Your task to perform on an android device: turn on priority inbox in the gmail app Image 0: 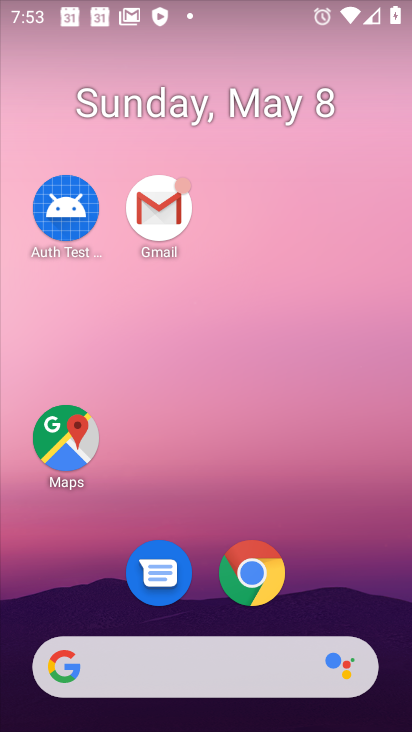
Step 0: drag from (332, 604) to (180, 159)
Your task to perform on an android device: turn on priority inbox in the gmail app Image 1: 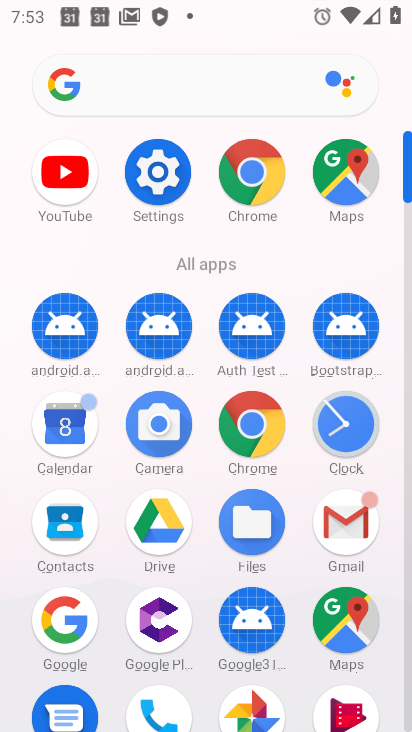
Step 1: click (343, 520)
Your task to perform on an android device: turn on priority inbox in the gmail app Image 2: 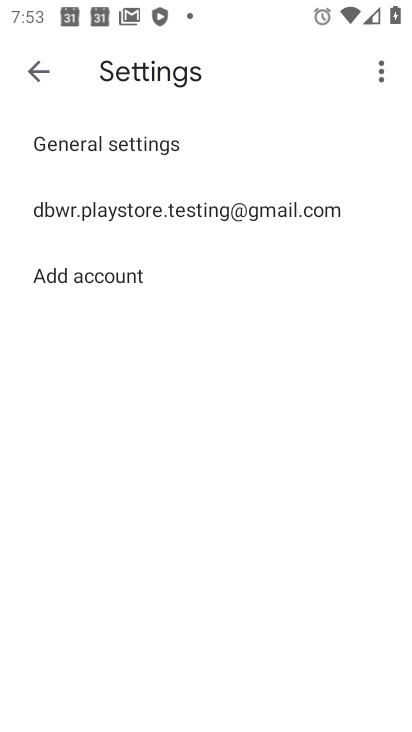
Step 2: click (158, 200)
Your task to perform on an android device: turn on priority inbox in the gmail app Image 3: 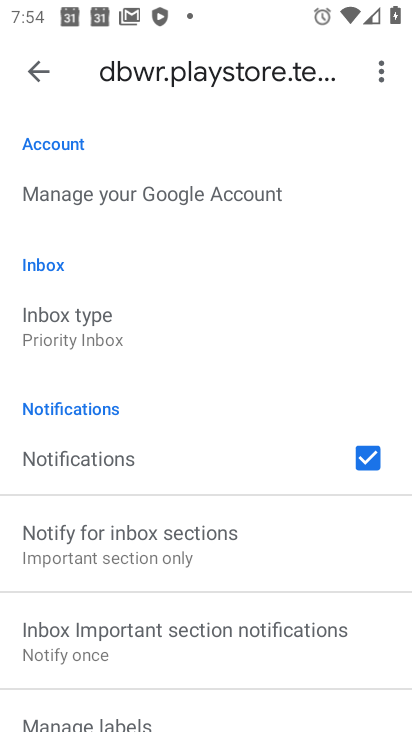
Step 3: click (63, 340)
Your task to perform on an android device: turn on priority inbox in the gmail app Image 4: 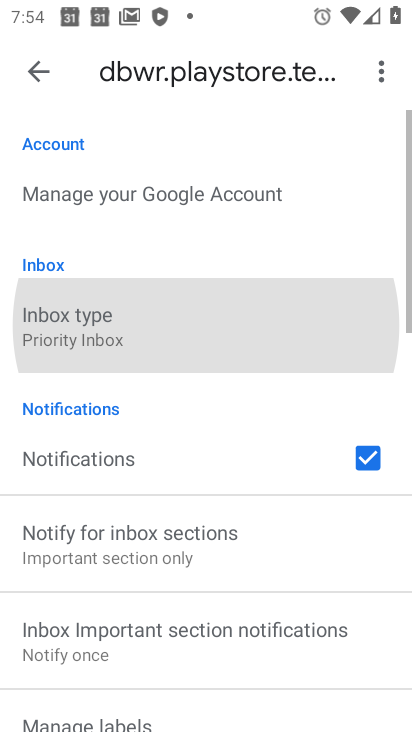
Step 4: click (63, 339)
Your task to perform on an android device: turn on priority inbox in the gmail app Image 5: 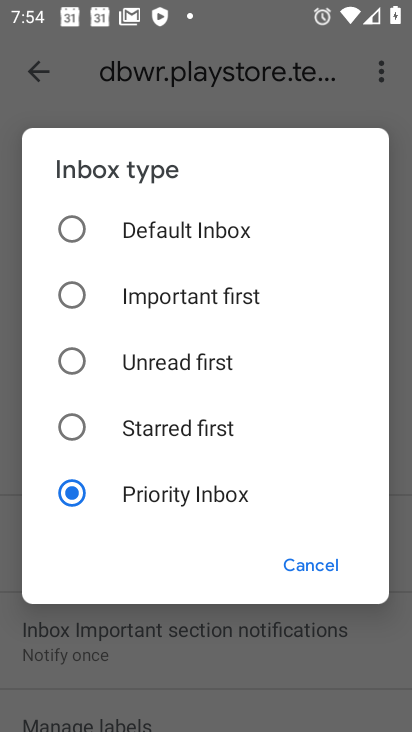
Step 5: click (334, 562)
Your task to perform on an android device: turn on priority inbox in the gmail app Image 6: 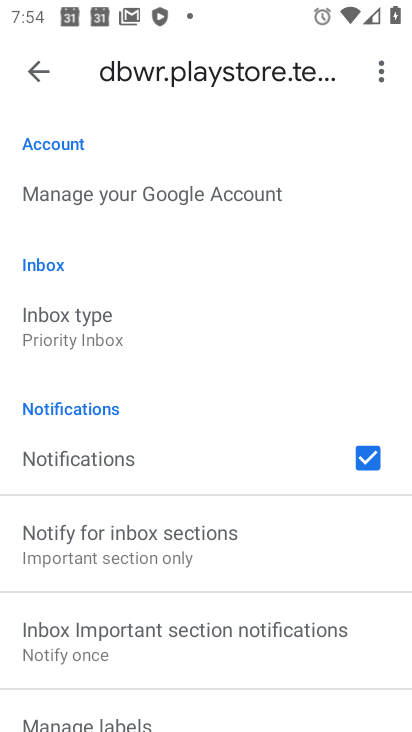
Step 6: task complete